Your task to perform on an android device: Go to Maps Image 0: 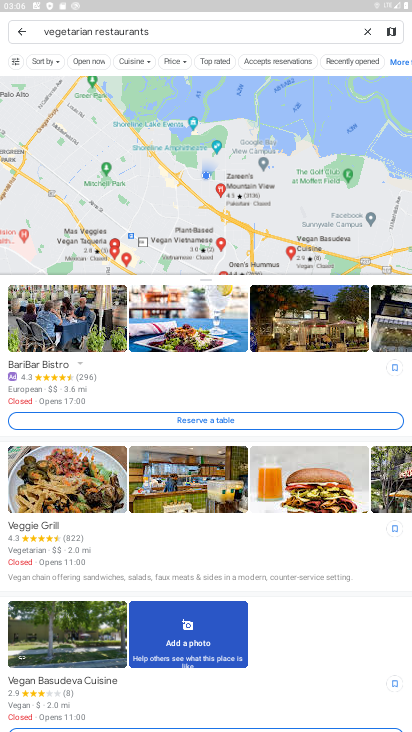
Step 0: task complete